Your task to perform on an android device: Turn on the flashlight Image 0: 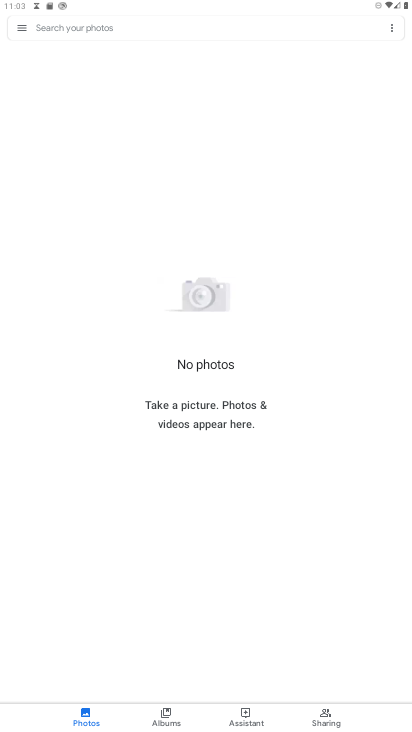
Step 0: press home button
Your task to perform on an android device: Turn on the flashlight Image 1: 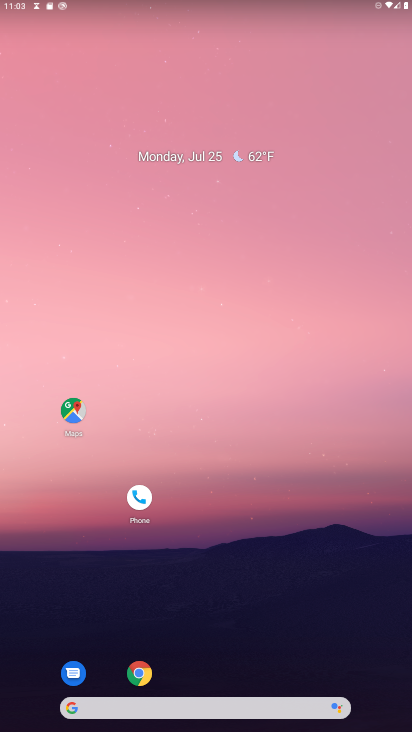
Step 1: task complete